Your task to perform on an android device: Clear the cart on bestbuy.com. Search for "logitech g pro" on bestbuy.com, select the first entry, add it to the cart, then select checkout. Image 0: 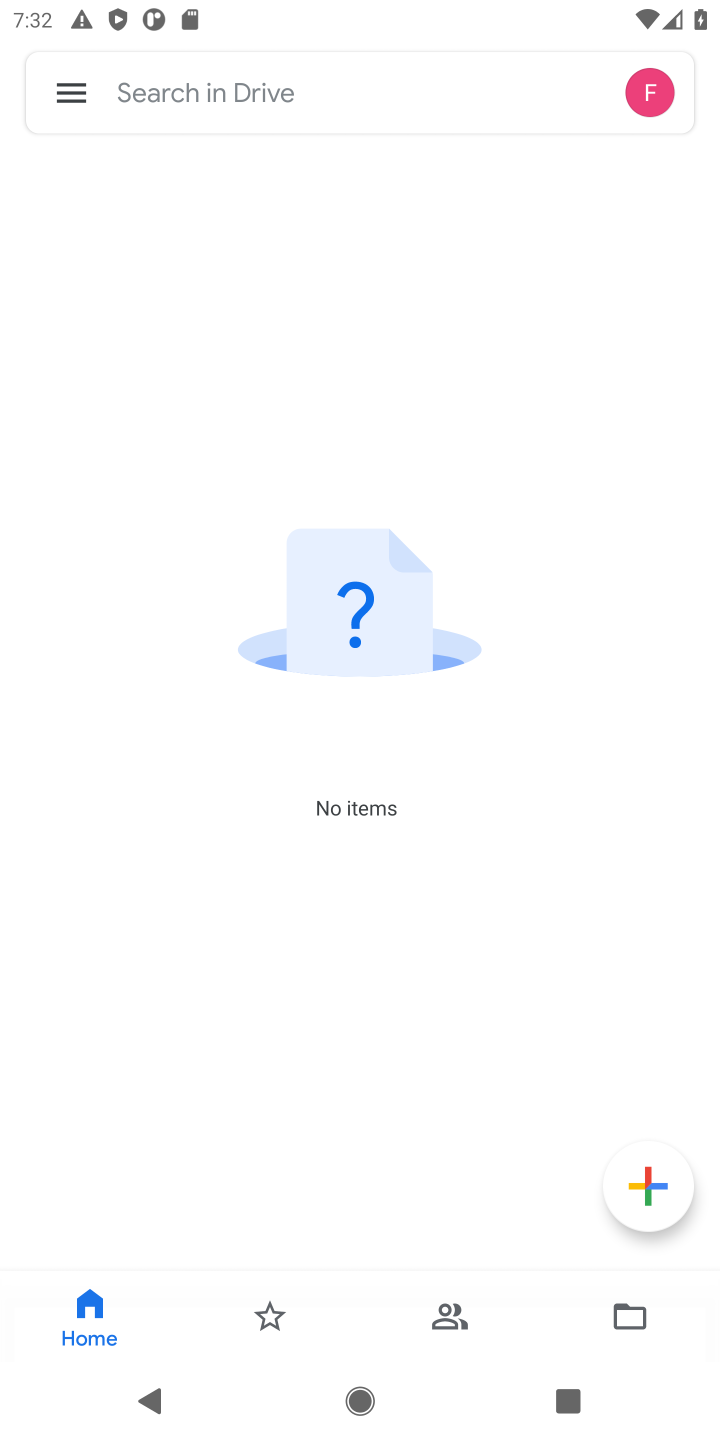
Step 0: press home button
Your task to perform on an android device: Clear the cart on bestbuy.com. Search for "logitech g pro" on bestbuy.com, select the first entry, add it to the cart, then select checkout. Image 1: 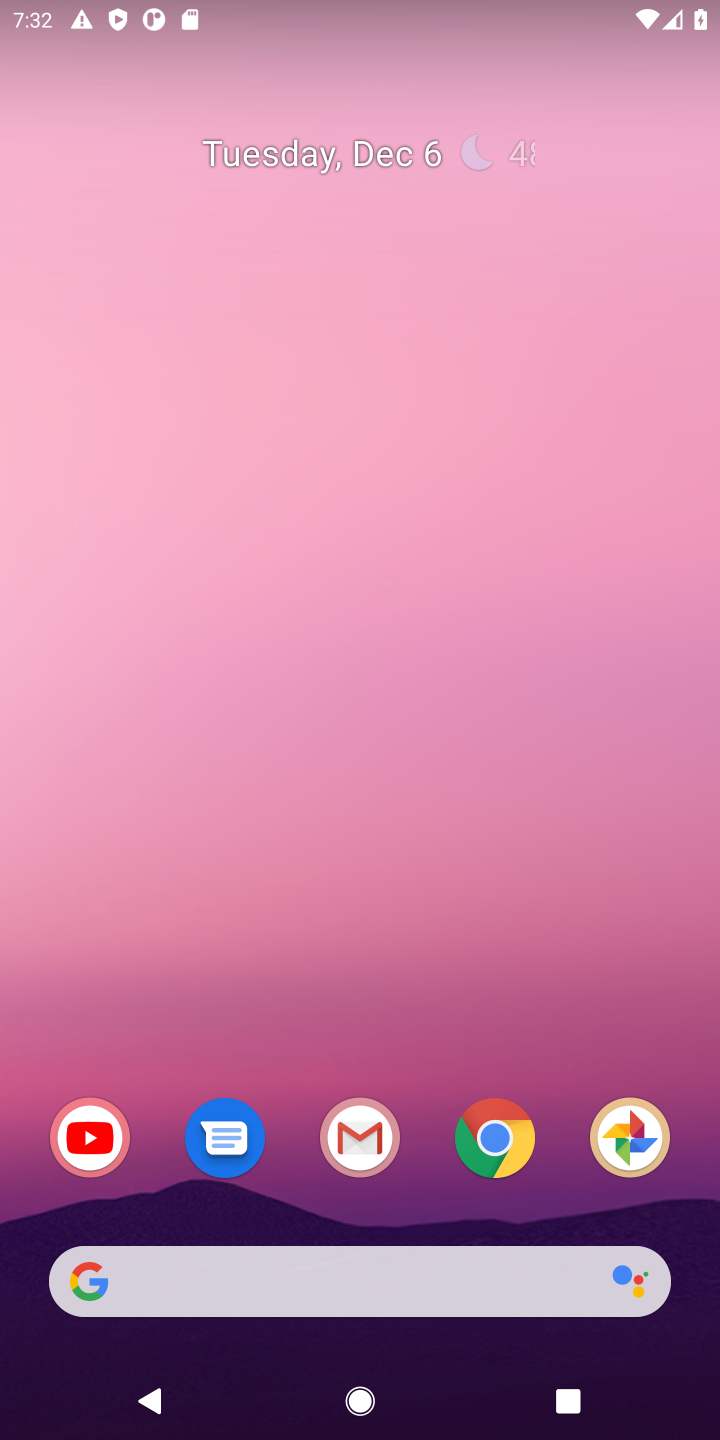
Step 1: click (493, 1157)
Your task to perform on an android device: Clear the cart on bestbuy.com. Search for "logitech g pro" on bestbuy.com, select the first entry, add it to the cart, then select checkout. Image 2: 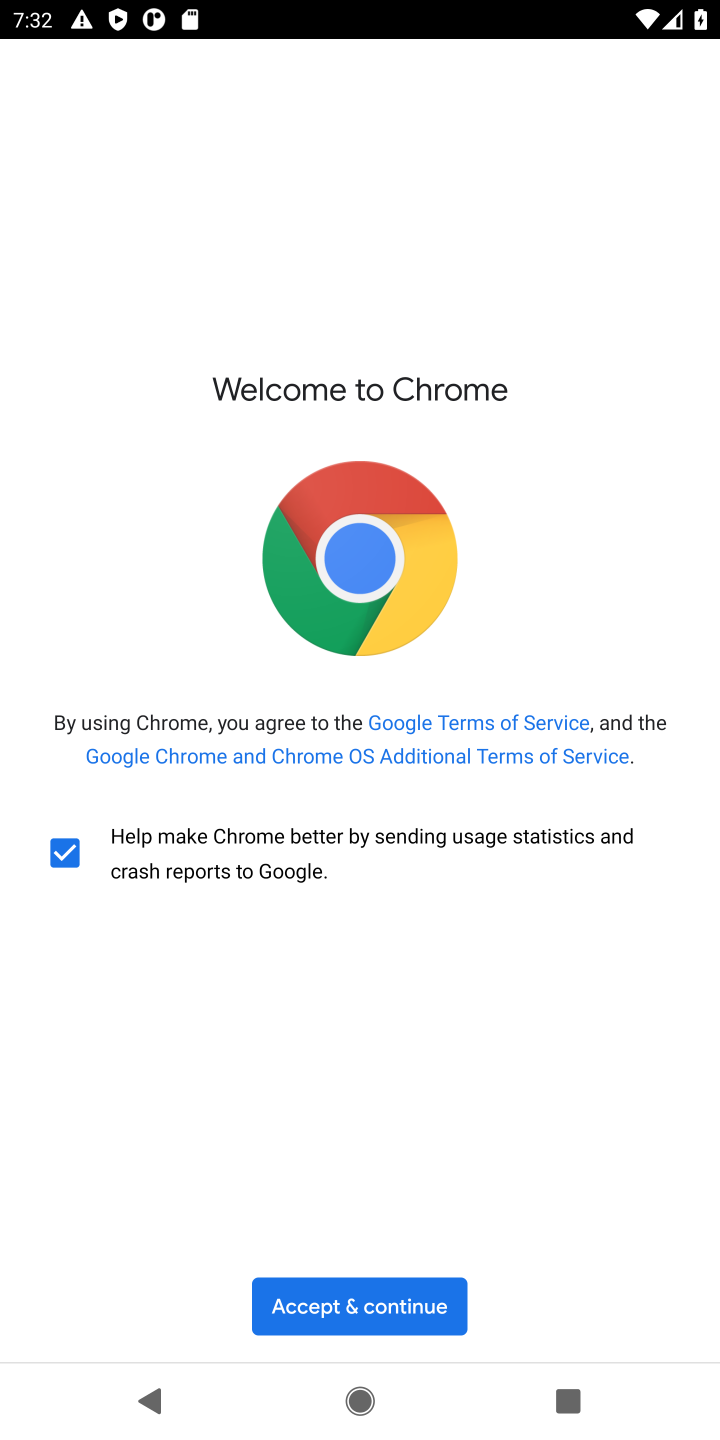
Step 2: click (355, 1308)
Your task to perform on an android device: Clear the cart on bestbuy.com. Search for "logitech g pro" on bestbuy.com, select the first entry, add it to the cart, then select checkout. Image 3: 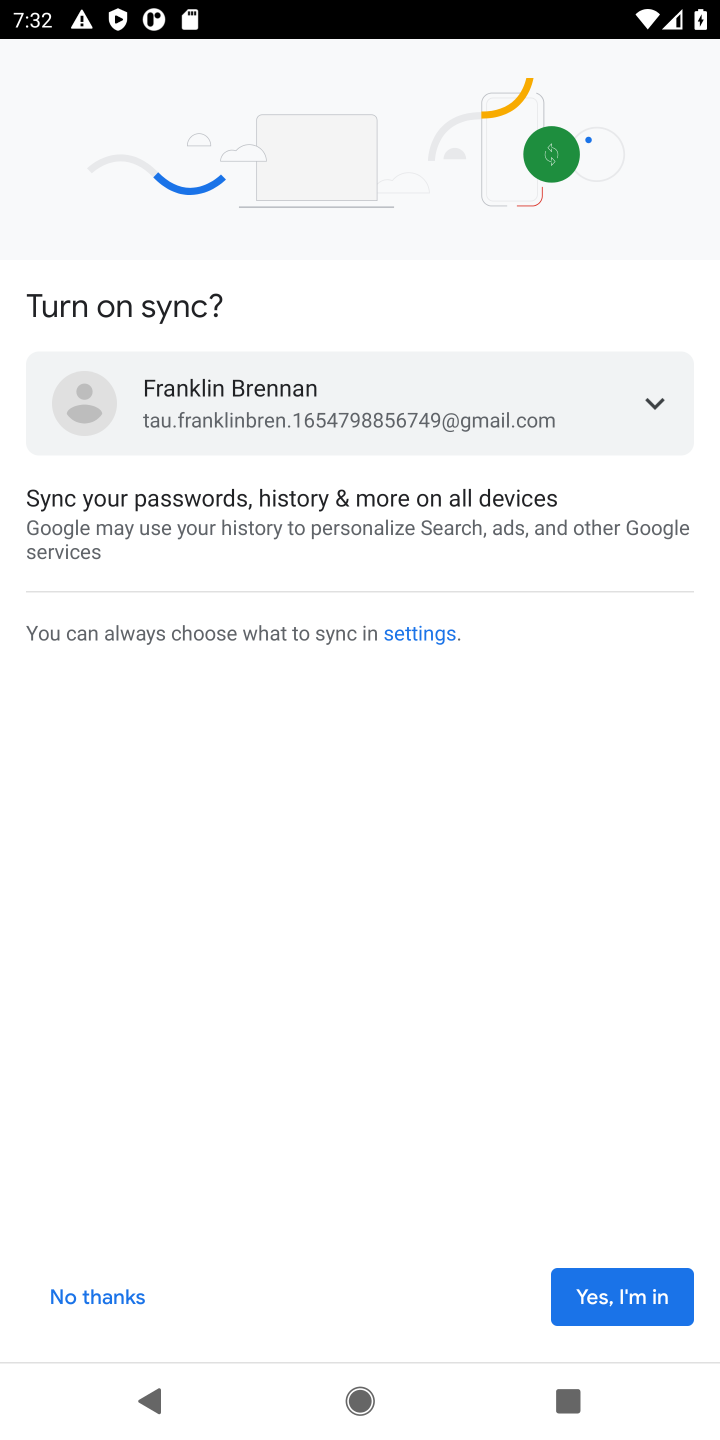
Step 3: click (100, 1311)
Your task to perform on an android device: Clear the cart on bestbuy.com. Search for "logitech g pro" on bestbuy.com, select the first entry, add it to the cart, then select checkout. Image 4: 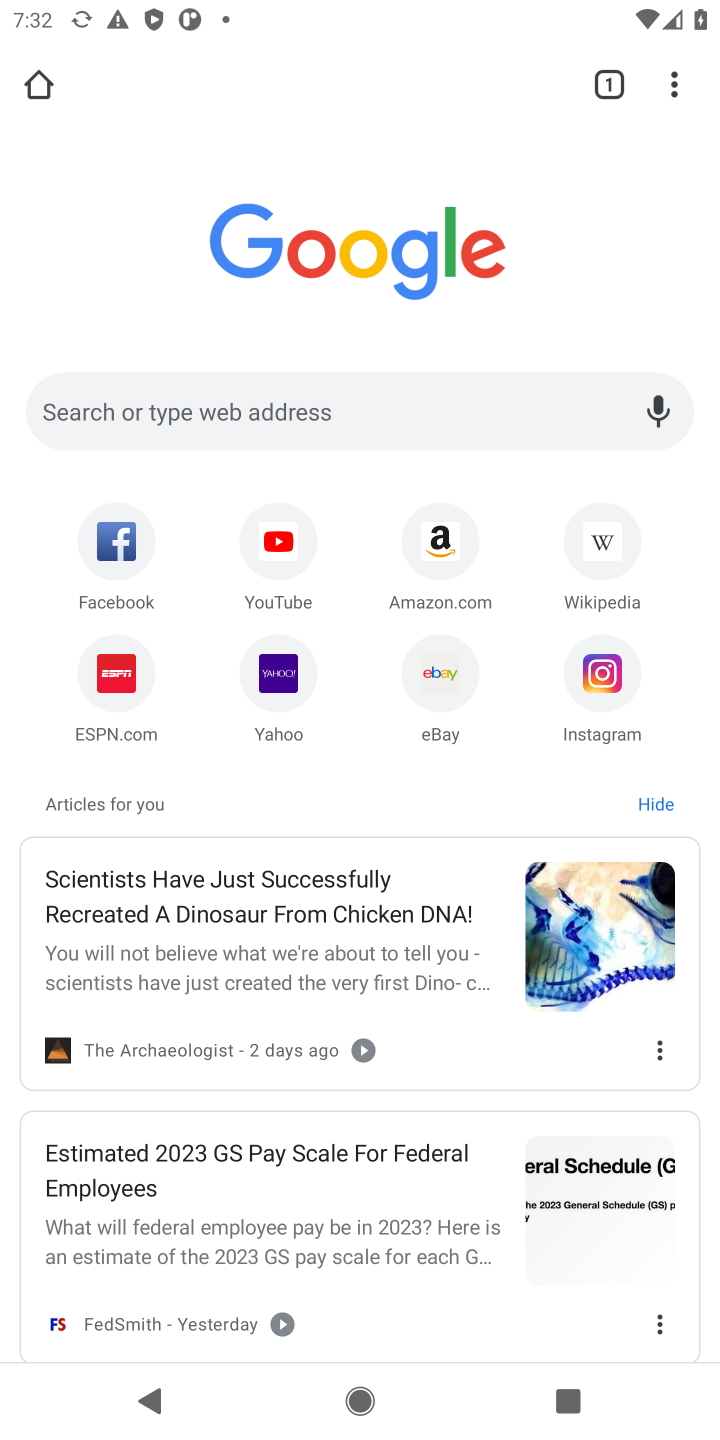
Step 4: click (238, 395)
Your task to perform on an android device: Clear the cart on bestbuy.com. Search for "logitech g pro" on bestbuy.com, select the first entry, add it to the cart, then select checkout. Image 5: 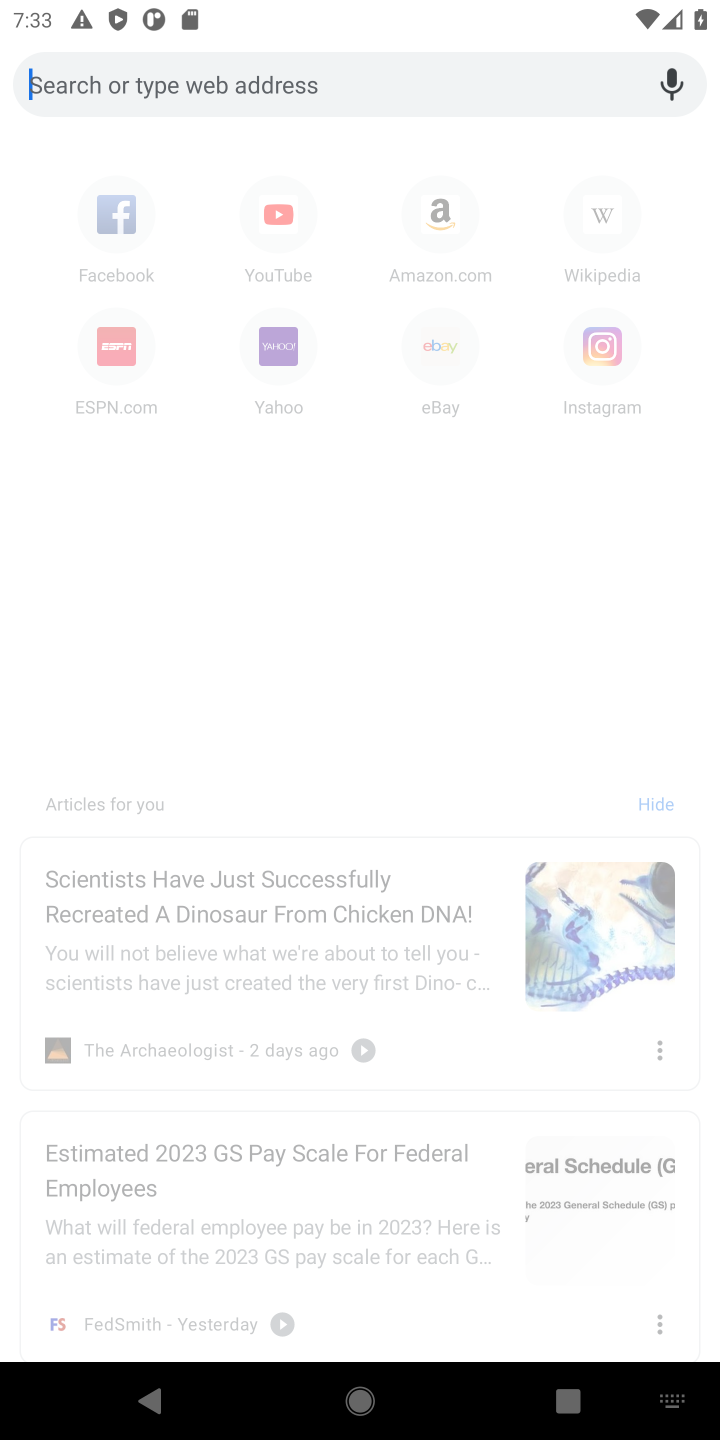
Step 5: type "bestbuy.com"
Your task to perform on an android device: Clear the cart on bestbuy.com. Search for "logitech g pro" on bestbuy.com, select the first entry, add it to the cart, then select checkout. Image 6: 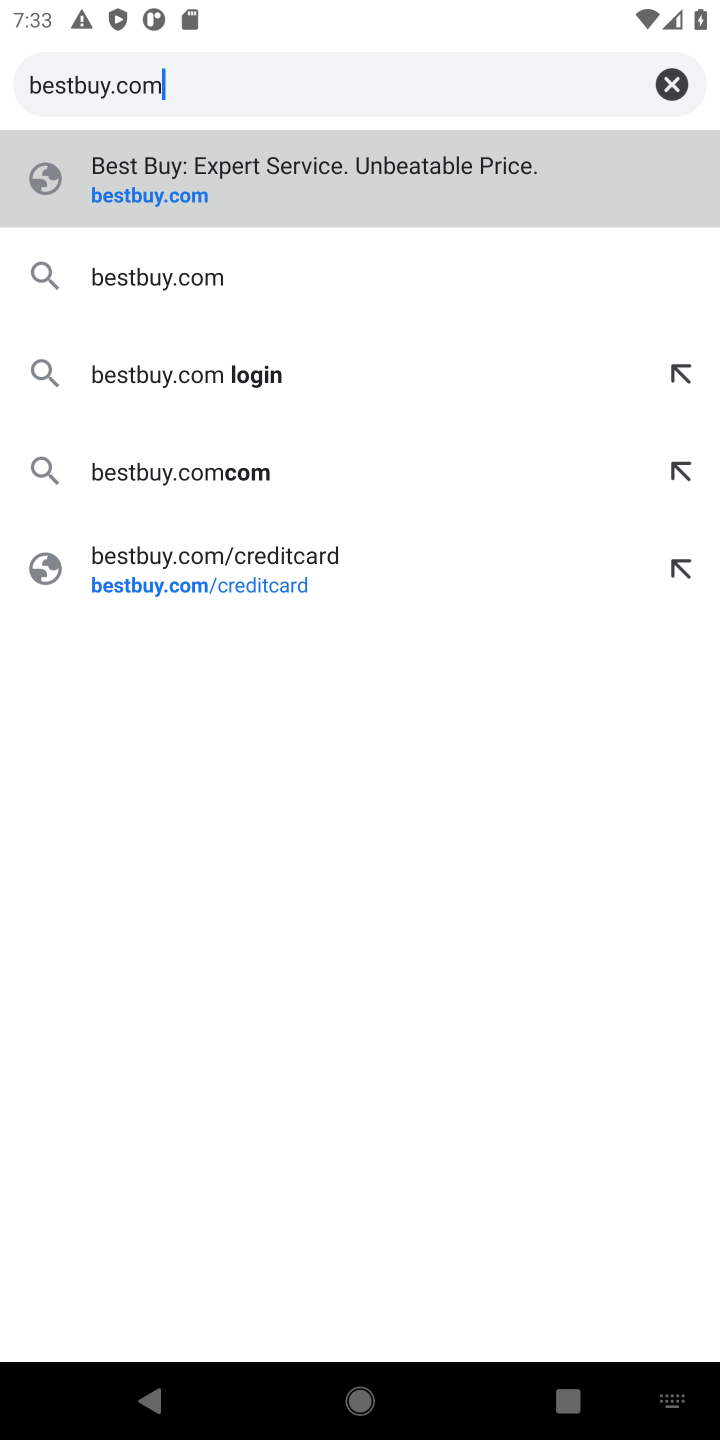
Step 6: click (139, 216)
Your task to perform on an android device: Clear the cart on bestbuy.com. Search for "logitech g pro" on bestbuy.com, select the first entry, add it to the cart, then select checkout. Image 7: 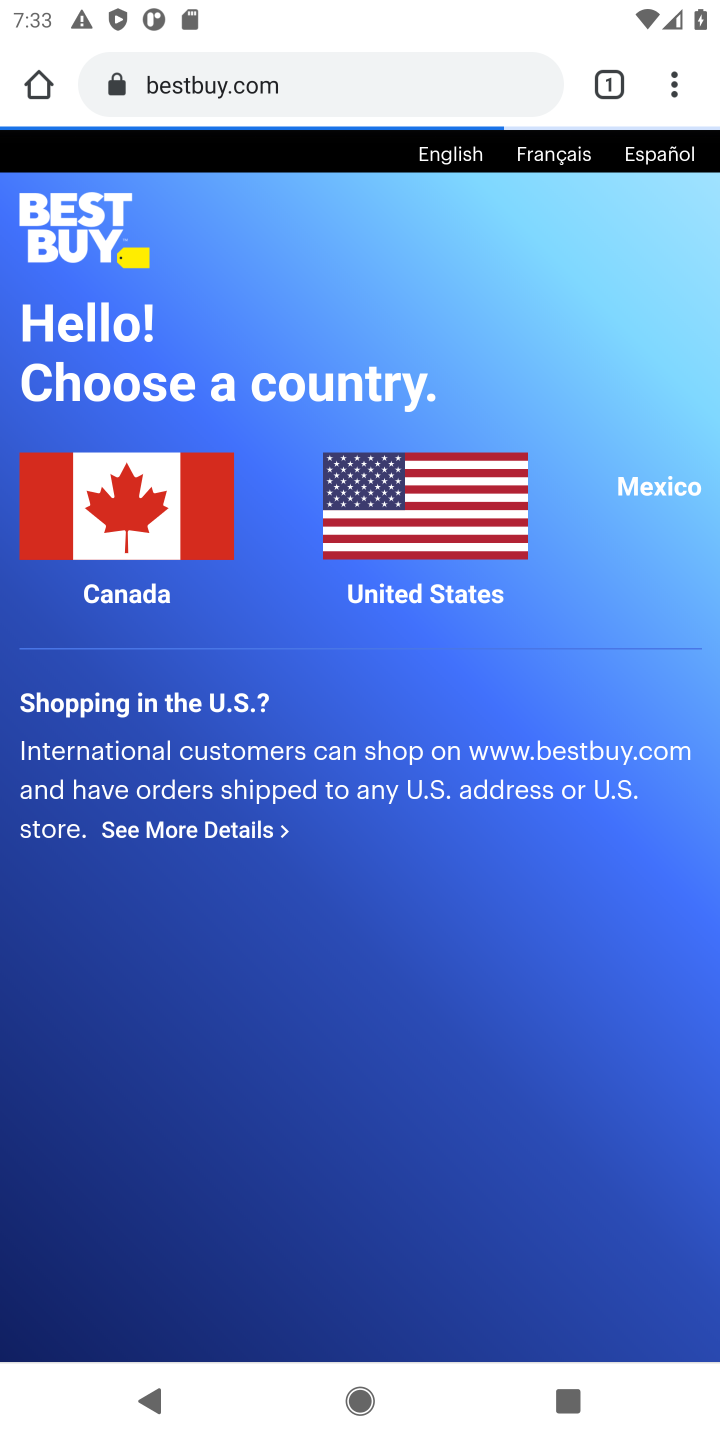
Step 7: click (389, 505)
Your task to perform on an android device: Clear the cart on bestbuy.com. Search for "logitech g pro" on bestbuy.com, select the first entry, add it to the cart, then select checkout. Image 8: 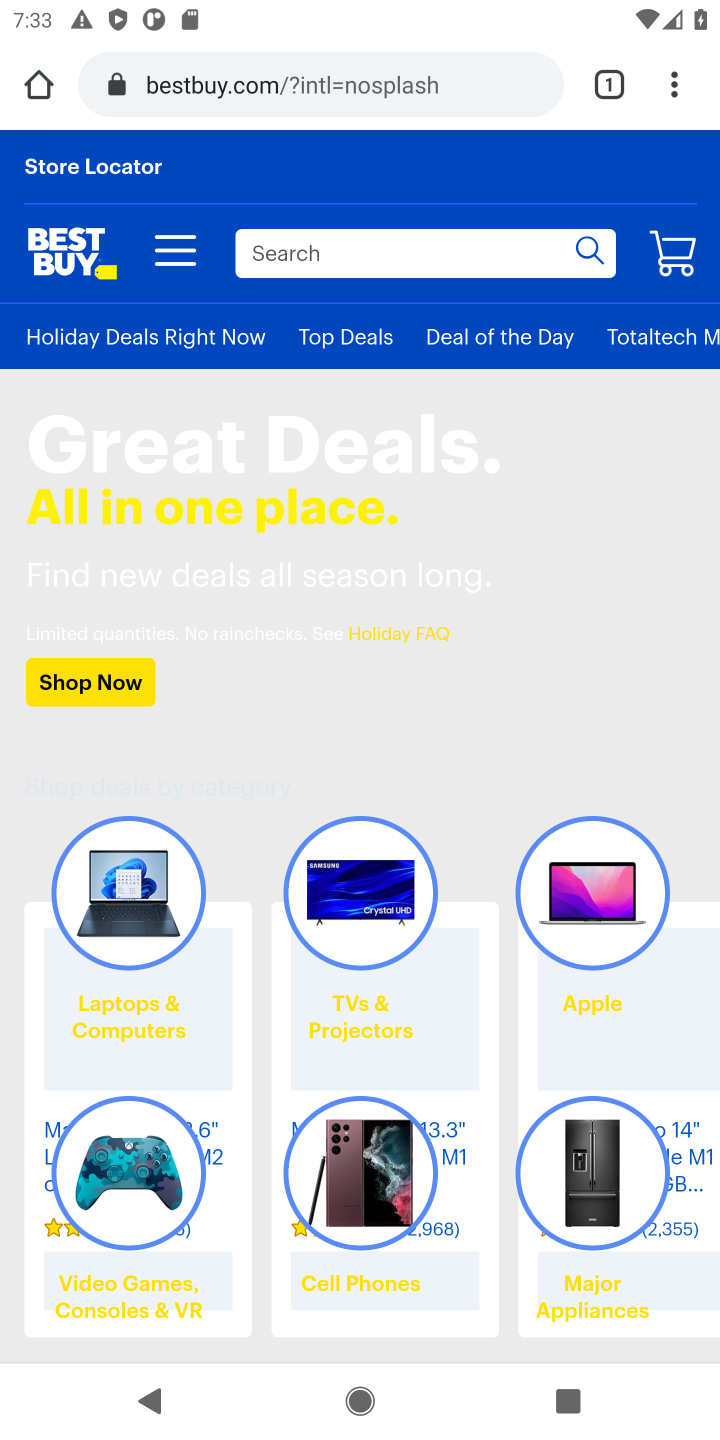
Step 8: click (682, 252)
Your task to perform on an android device: Clear the cart on bestbuy.com. Search for "logitech g pro" on bestbuy.com, select the first entry, add it to the cart, then select checkout. Image 9: 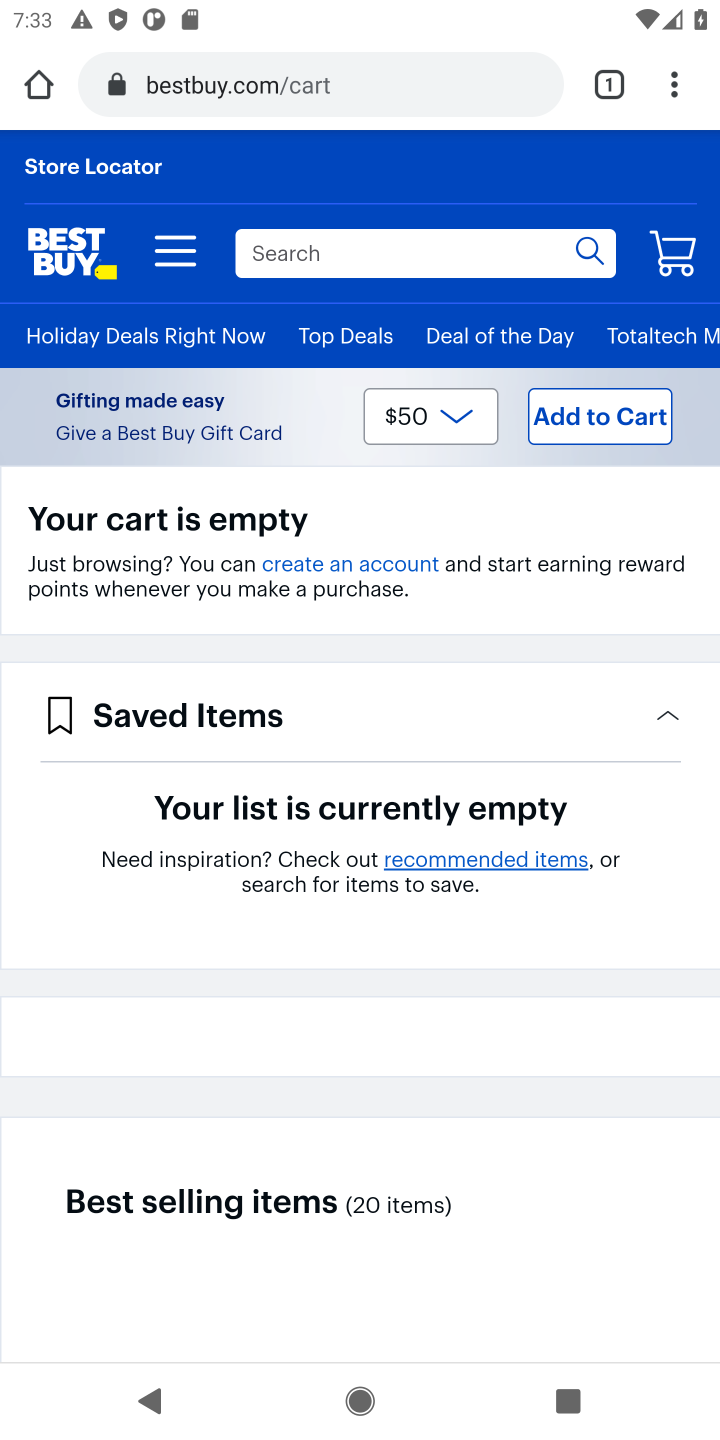
Step 9: click (314, 248)
Your task to perform on an android device: Clear the cart on bestbuy.com. Search for "logitech g pro" on bestbuy.com, select the first entry, add it to the cart, then select checkout. Image 10: 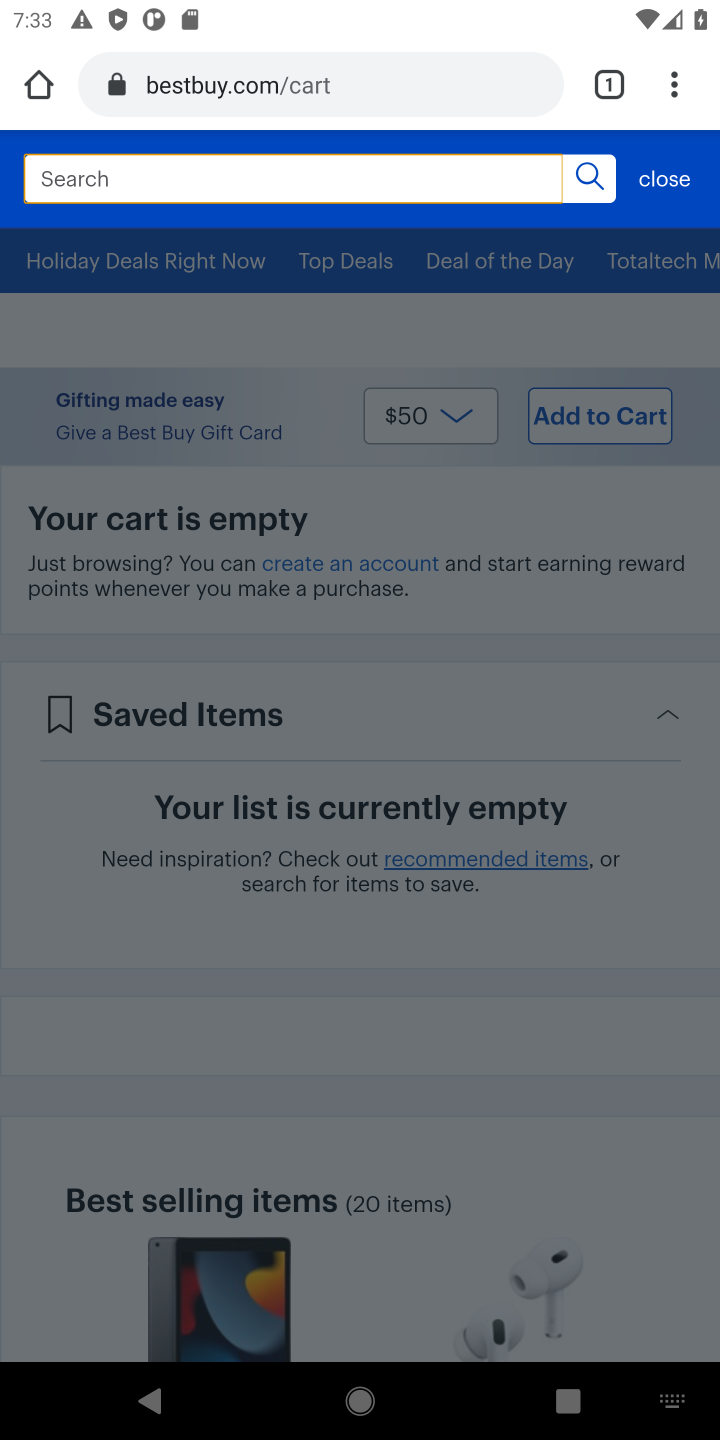
Step 10: type "logitech g pro"
Your task to perform on an android device: Clear the cart on bestbuy.com. Search for "logitech g pro" on bestbuy.com, select the first entry, add it to the cart, then select checkout. Image 11: 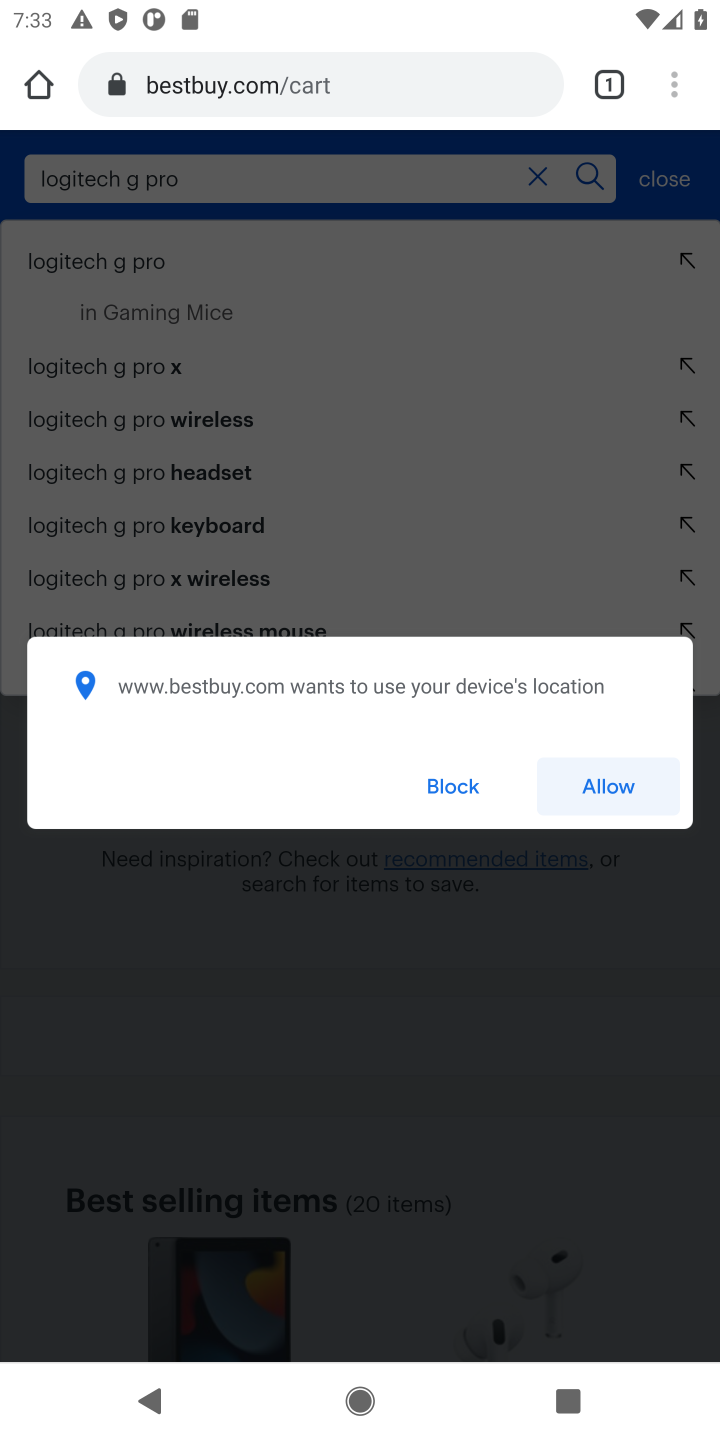
Step 11: click (444, 797)
Your task to perform on an android device: Clear the cart on bestbuy.com. Search for "logitech g pro" on bestbuy.com, select the first entry, add it to the cart, then select checkout. Image 12: 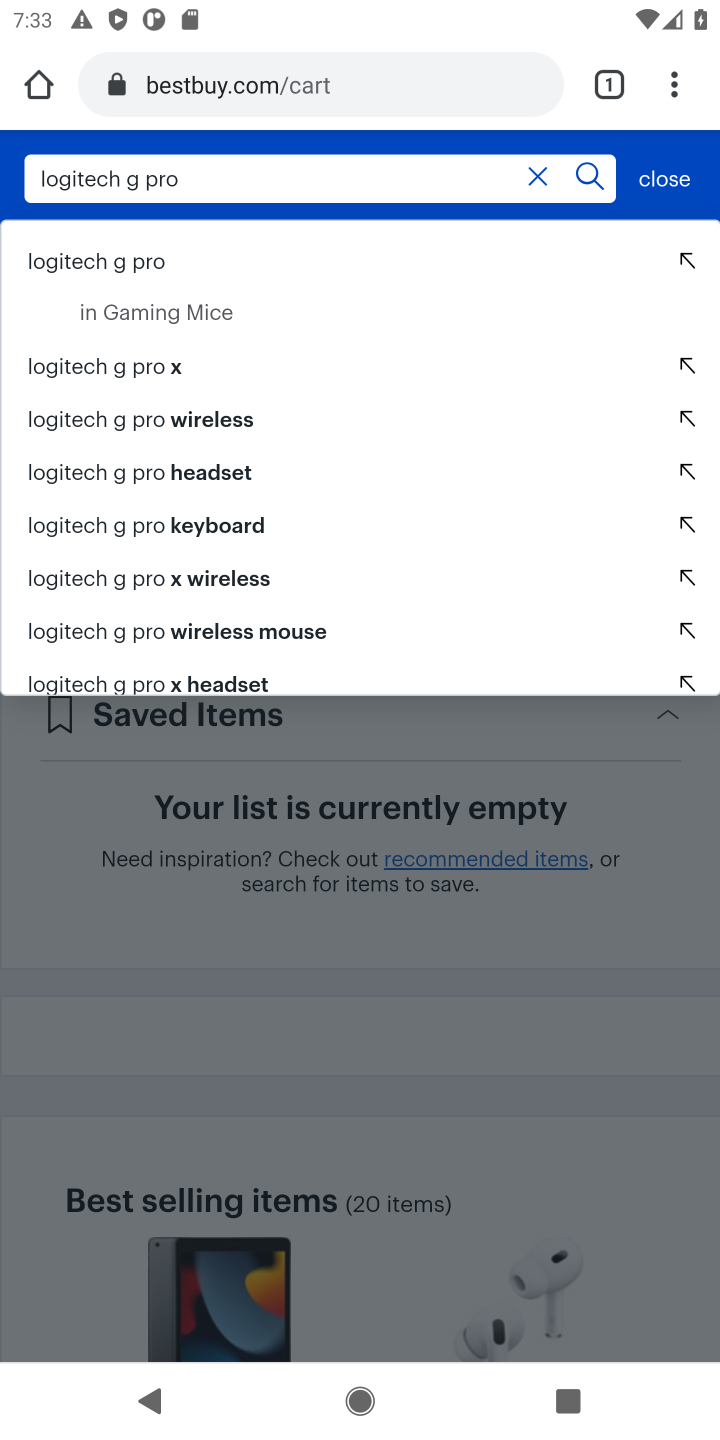
Step 12: click (133, 258)
Your task to perform on an android device: Clear the cart on bestbuy.com. Search for "logitech g pro" on bestbuy.com, select the first entry, add it to the cart, then select checkout. Image 13: 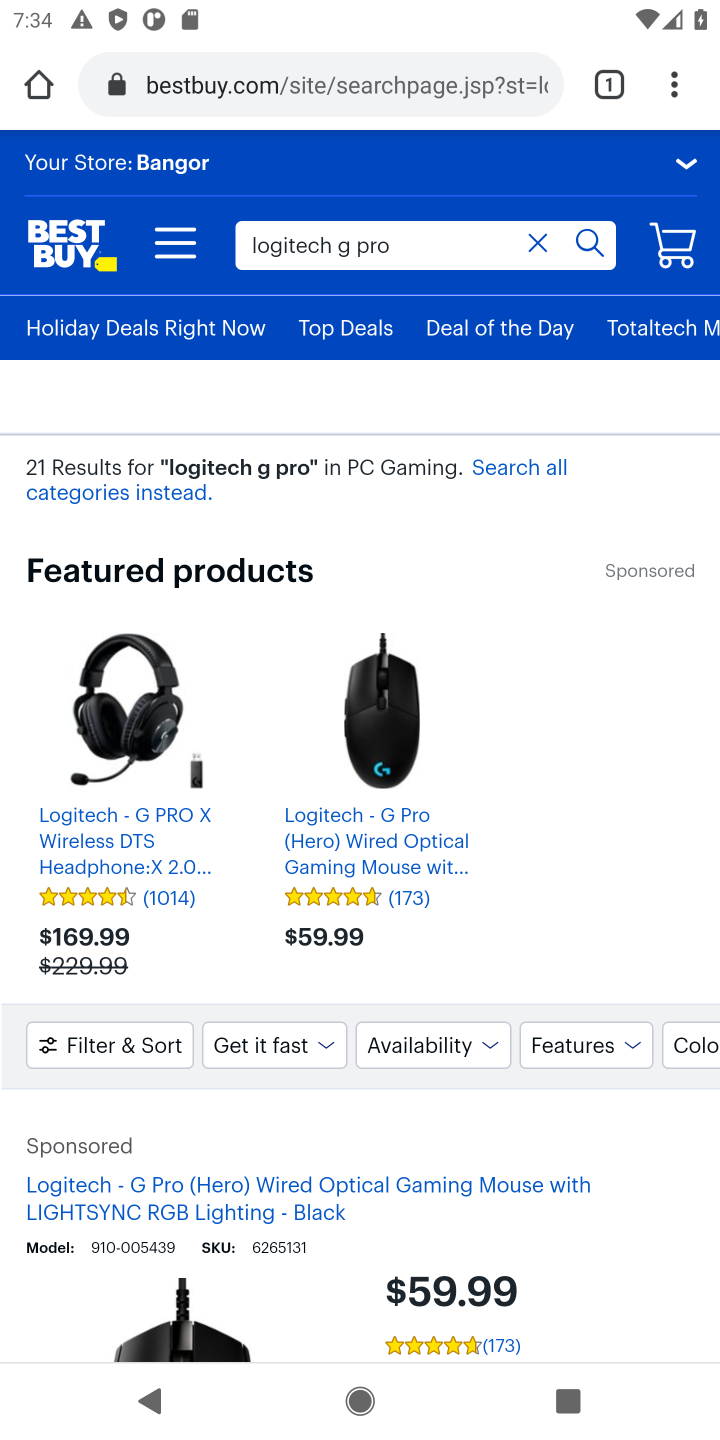
Step 13: drag from (318, 1267) to (291, 679)
Your task to perform on an android device: Clear the cart on bestbuy.com. Search for "logitech g pro" on bestbuy.com, select the first entry, add it to the cart, then select checkout. Image 14: 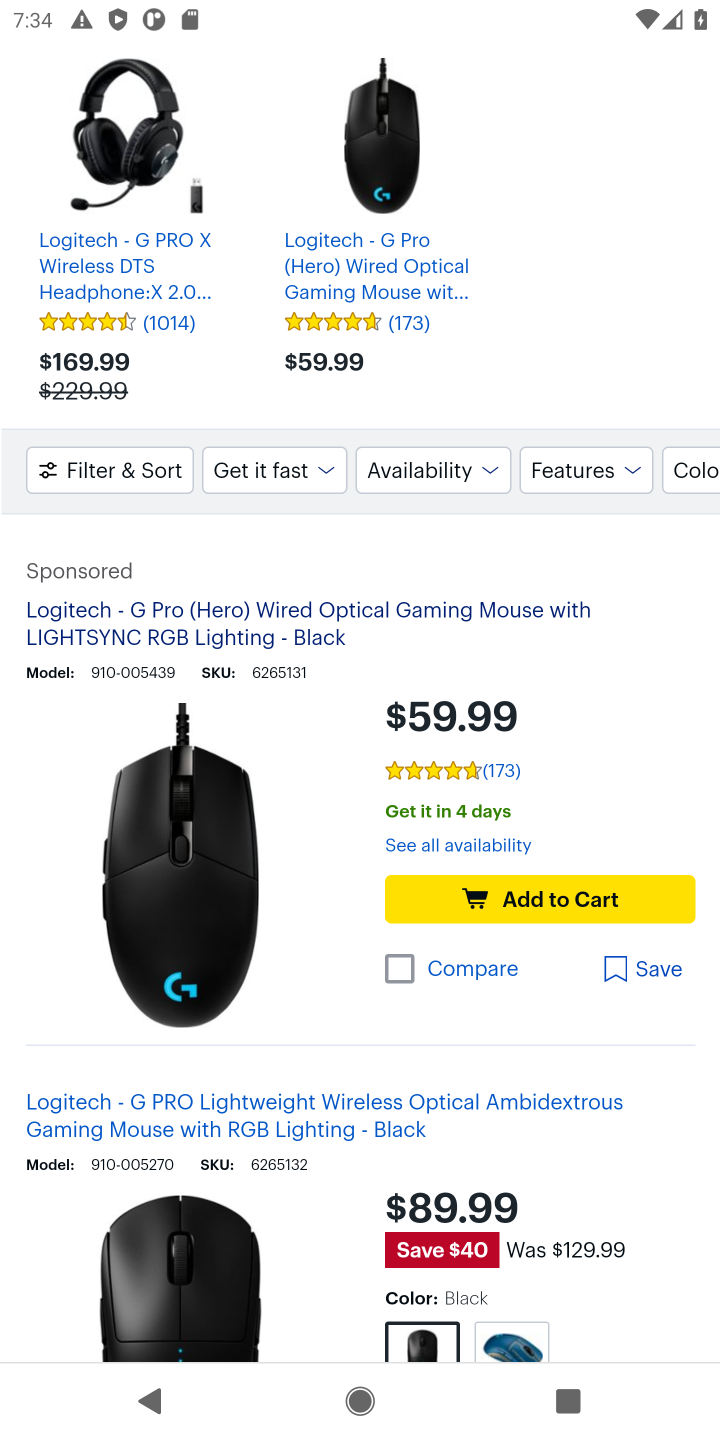
Step 14: click (494, 902)
Your task to perform on an android device: Clear the cart on bestbuy.com. Search for "logitech g pro" on bestbuy.com, select the first entry, add it to the cart, then select checkout. Image 15: 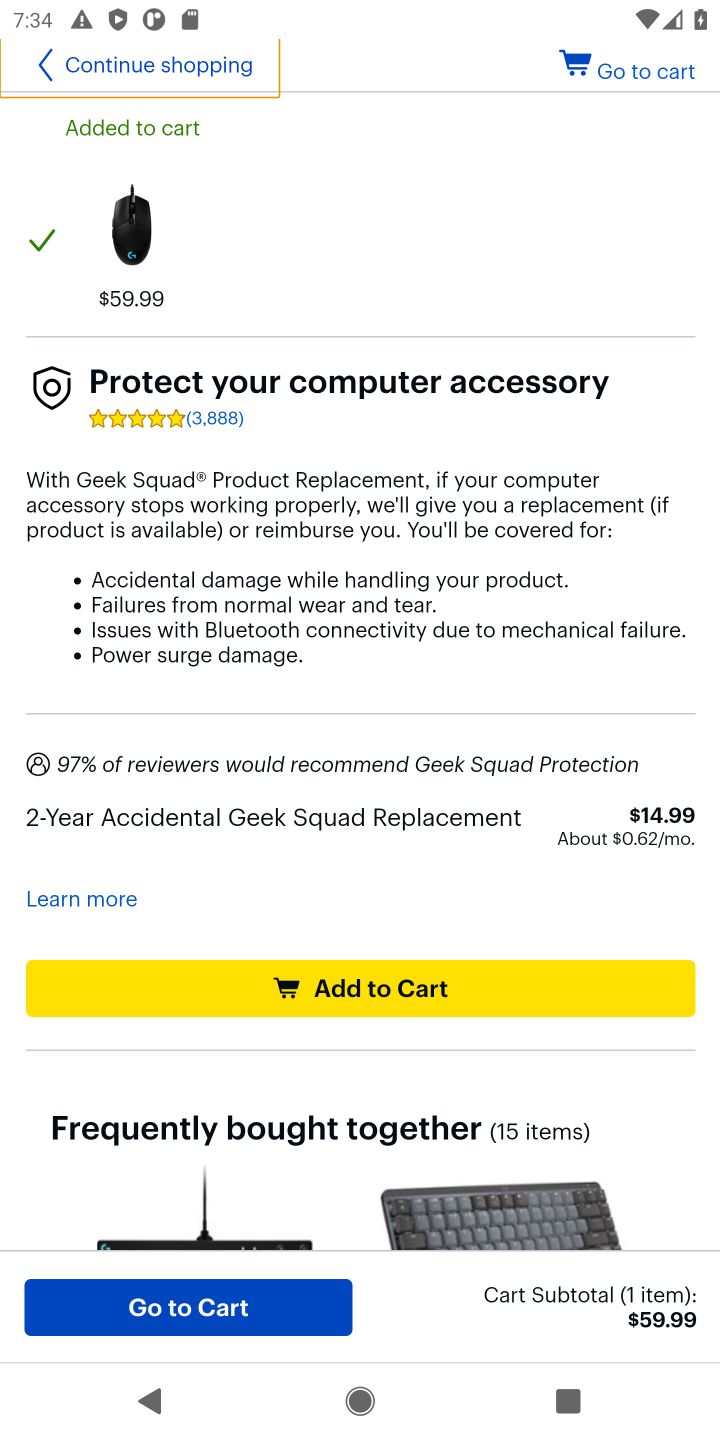
Step 15: click (635, 81)
Your task to perform on an android device: Clear the cart on bestbuy.com. Search for "logitech g pro" on bestbuy.com, select the first entry, add it to the cart, then select checkout. Image 16: 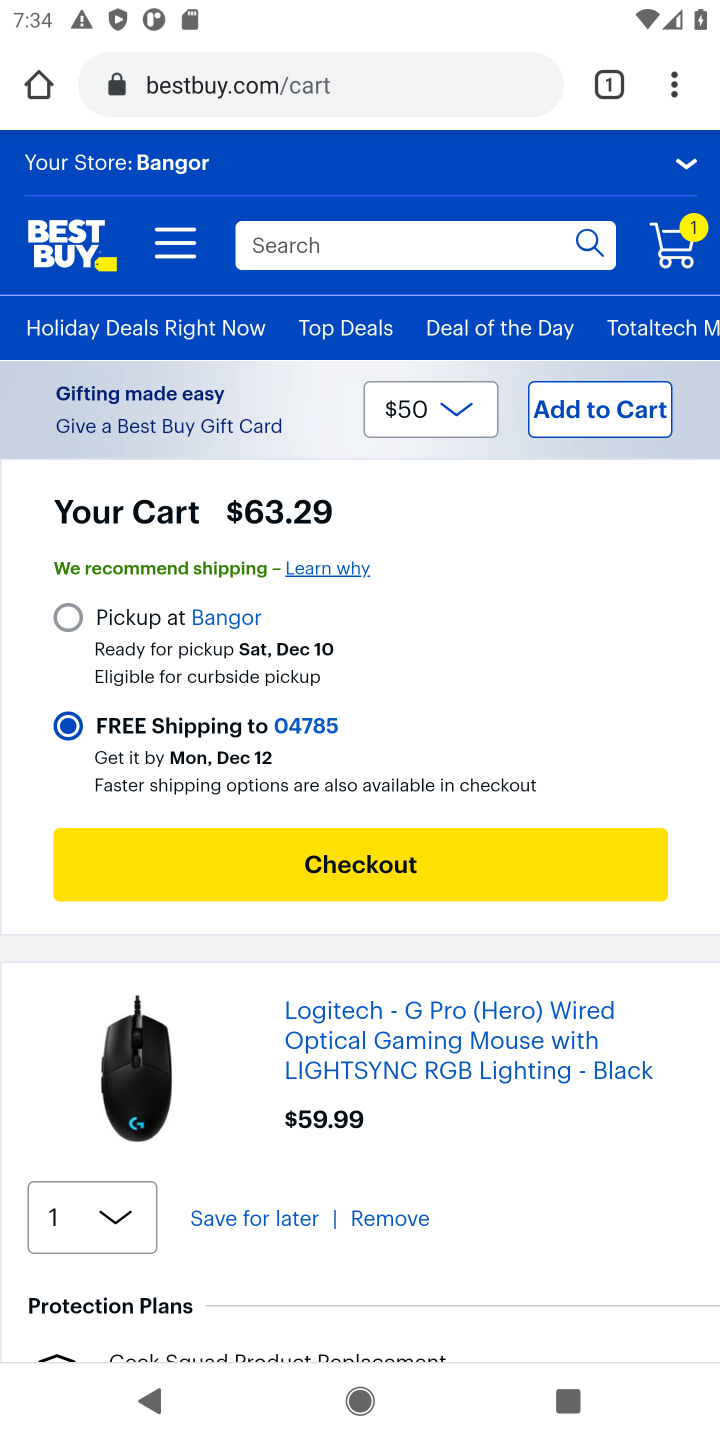
Step 16: click (361, 870)
Your task to perform on an android device: Clear the cart on bestbuy.com. Search for "logitech g pro" on bestbuy.com, select the first entry, add it to the cart, then select checkout. Image 17: 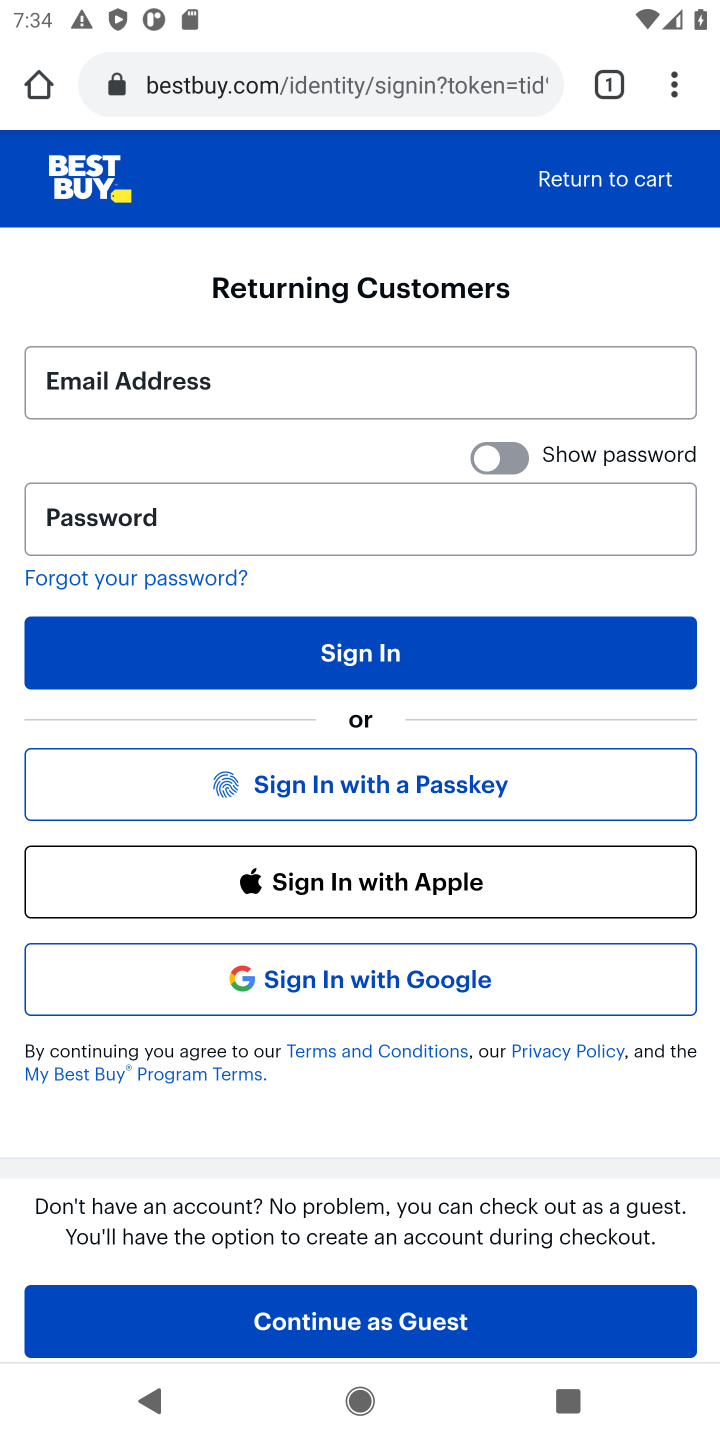
Step 17: task complete